Your task to perform on an android device: open the mobile data screen to see how much data has been used Image 0: 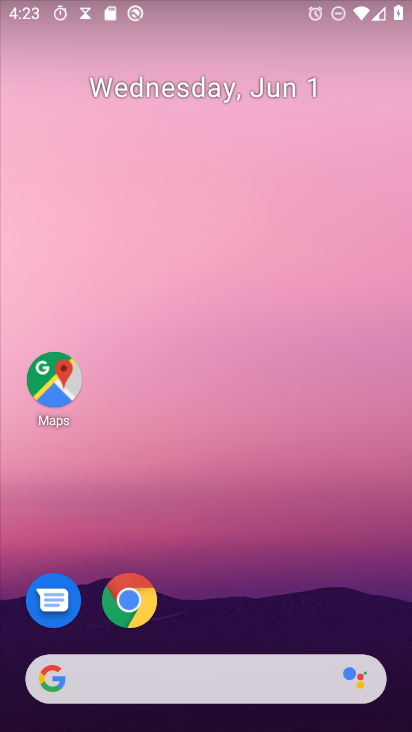
Step 0: drag from (206, 637) to (179, 177)
Your task to perform on an android device: open the mobile data screen to see how much data has been used Image 1: 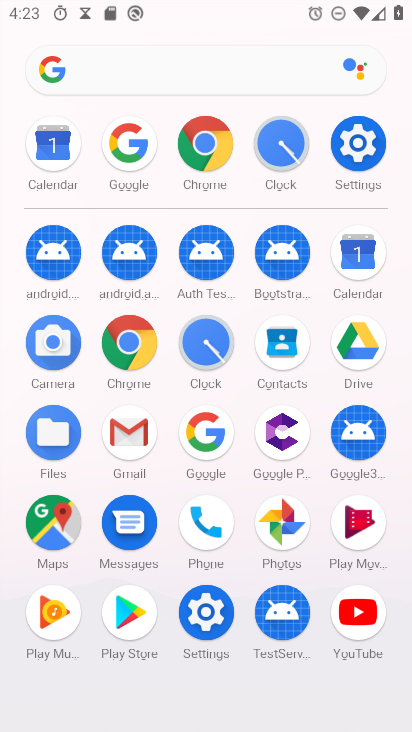
Step 1: click (358, 152)
Your task to perform on an android device: open the mobile data screen to see how much data has been used Image 2: 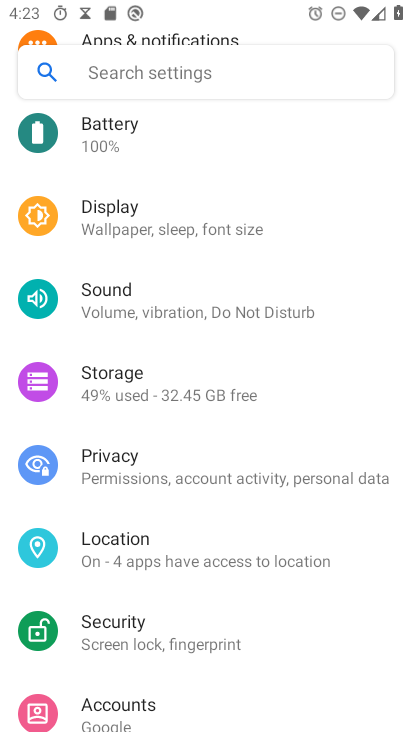
Step 2: drag from (194, 242) to (165, 503)
Your task to perform on an android device: open the mobile data screen to see how much data has been used Image 3: 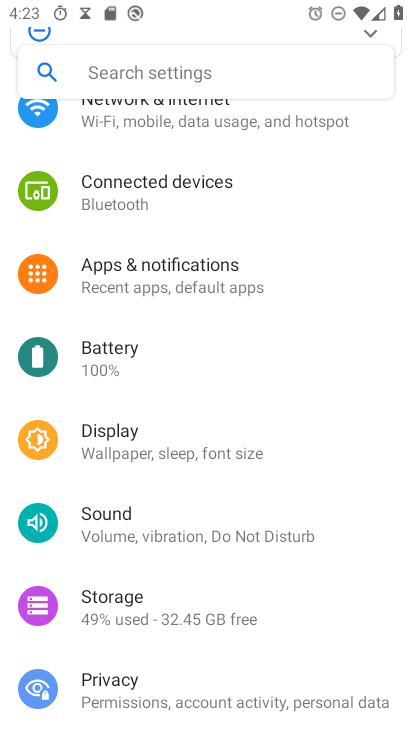
Step 3: drag from (150, 238) to (147, 362)
Your task to perform on an android device: open the mobile data screen to see how much data has been used Image 4: 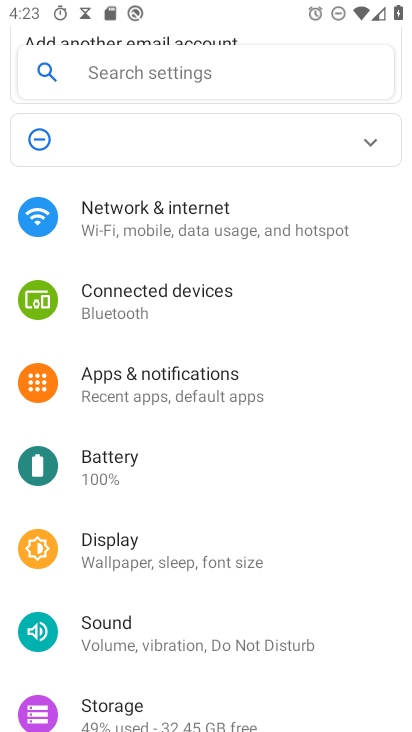
Step 4: click (164, 184)
Your task to perform on an android device: open the mobile data screen to see how much data has been used Image 5: 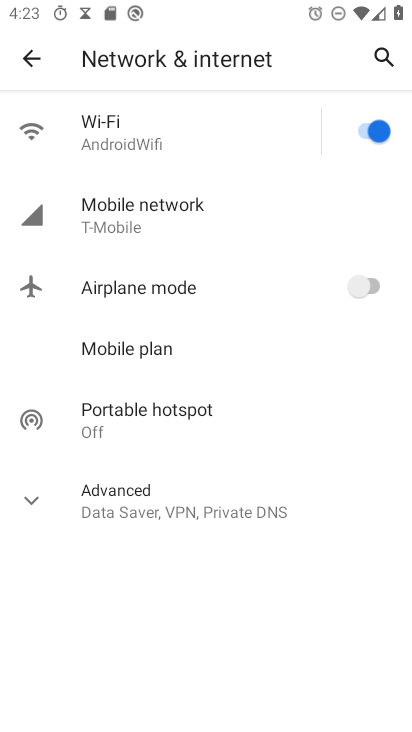
Step 5: click (152, 226)
Your task to perform on an android device: open the mobile data screen to see how much data has been used Image 6: 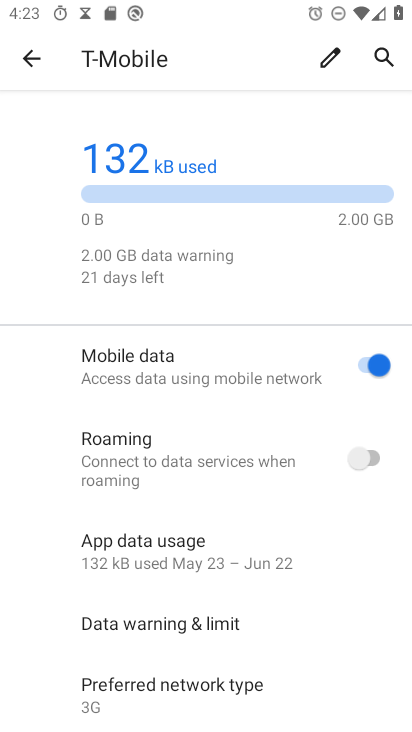
Step 6: task complete